Your task to perform on an android device: change notification settings in the gmail app Image 0: 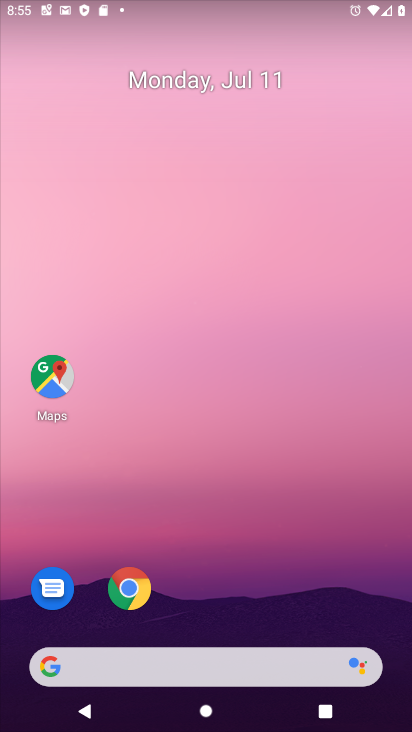
Step 0: press home button
Your task to perform on an android device: change notification settings in the gmail app Image 1: 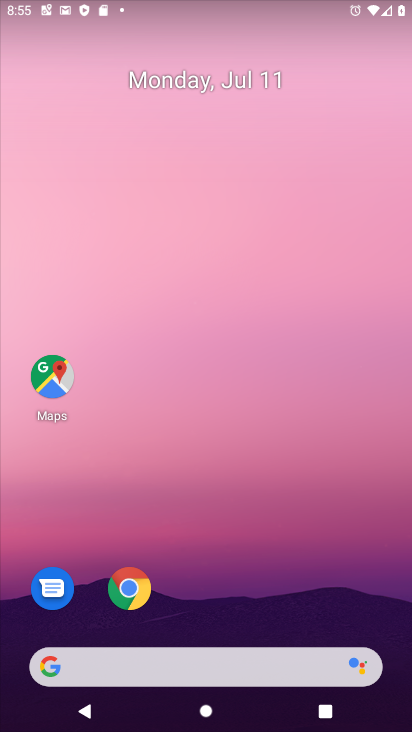
Step 1: drag from (182, 666) to (333, 84)
Your task to perform on an android device: change notification settings in the gmail app Image 2: 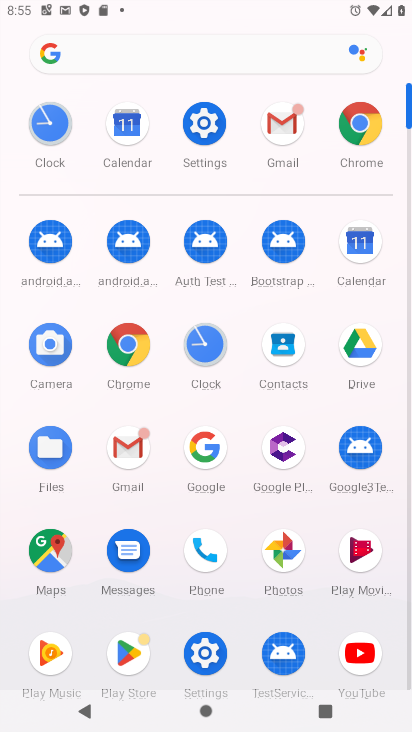
Step 2: click (285, 117)
Your task to perform on an android device: change notification settings in the gmail app Image 3: 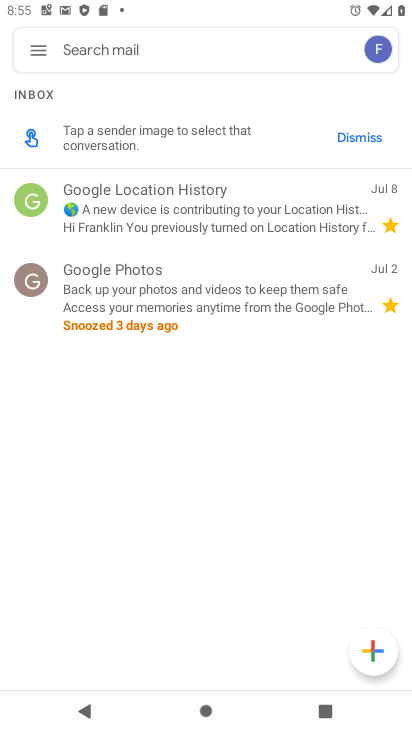
Step 3: click (40, 48)
Your task to perform on an android device: change notification settings in the gmail app Image 4: 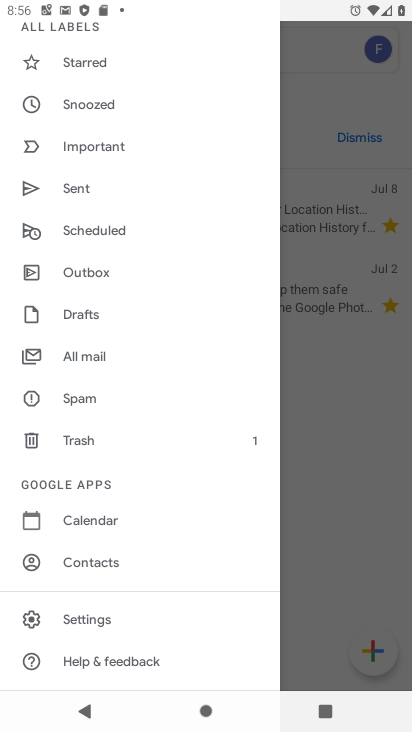
Step 4: click (91, 623)
Your task to perform on an android device: change notification settings in the gmail app Image 5: 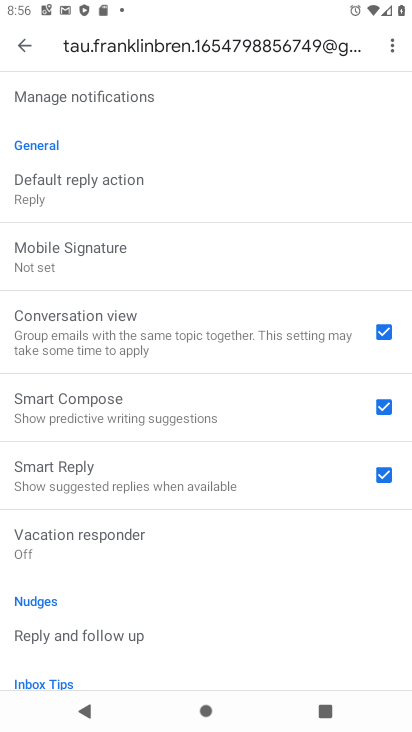
Step 5: drag from (234, 152) to (201, 578)
Your task to perform on an android device: change notification settings in the gmail app Image 6: 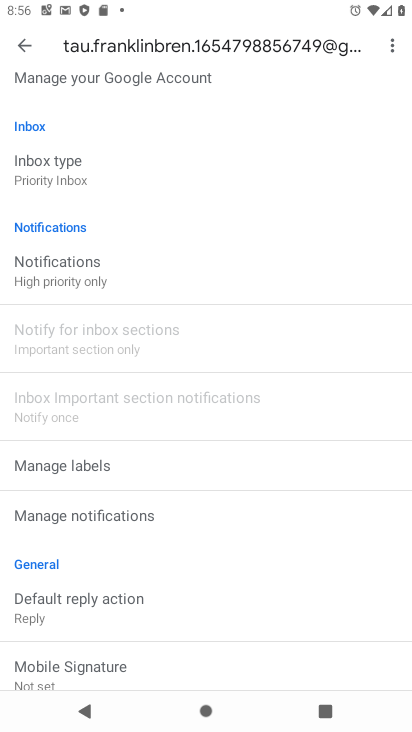
Step 6: click (72, 276)
Your task to perform on an android device: change notification settings in the gmail app Image 7: 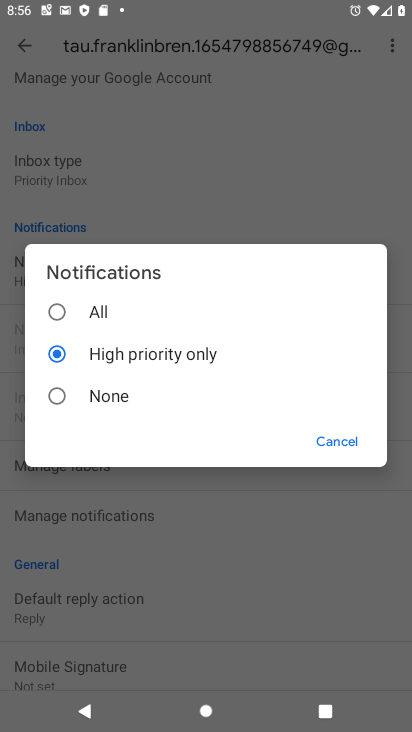
Step 7: click (60, 310)
Your task to perform on an android device: change notification settings in the gmail app Image 8: 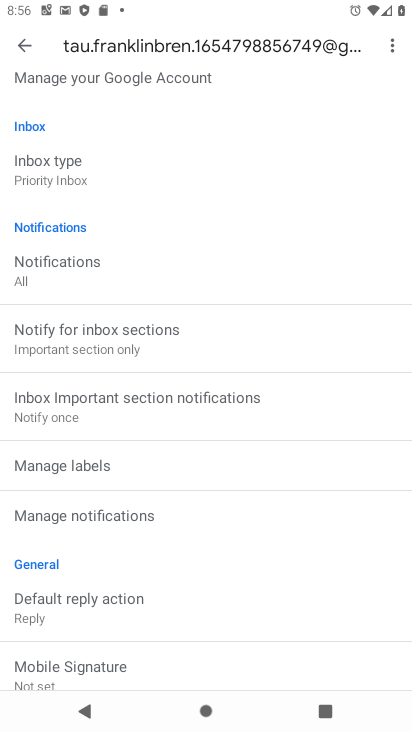
Step 8: task complete